Your task to perform on an android device: Open accessibility settings Image 0: 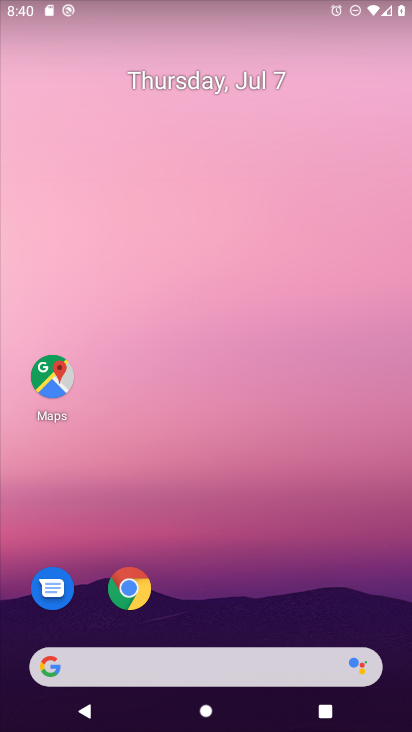
Step 0: drag from (240, 596) to (245, 325)
Your task to perform on an android device: Open accessibility settings Image 1: 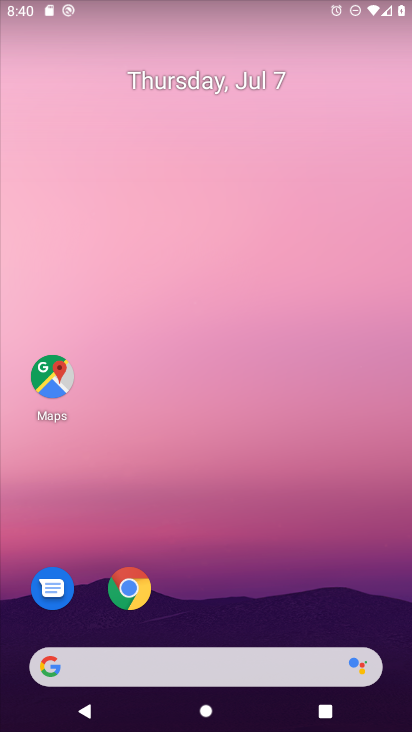
Step 1: drag from (228, 668) to (230, 266)
Your task to perform on an android device: Open accessibility settings Image 2: 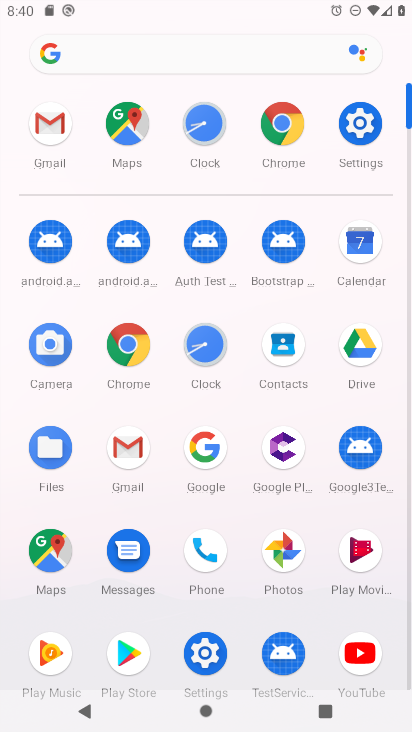
Step 2: click (355, 112)
Your task to perform on an android device: Open accessibility settings Image 3: 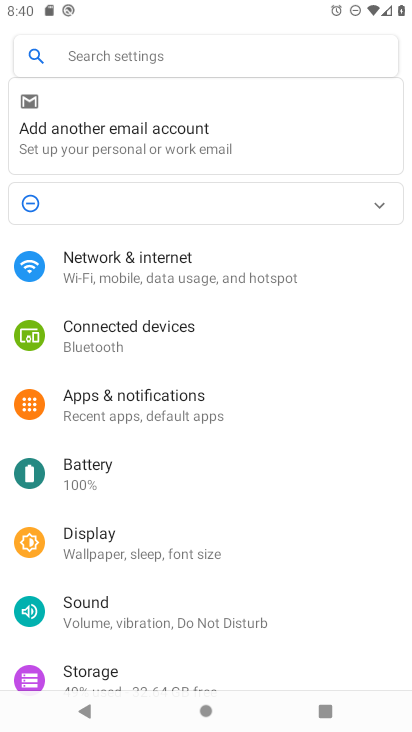
Step 3: drag from (169, 614) to (245, 235)
Your task to perform on an android device: Open accessibility settings Image 4: 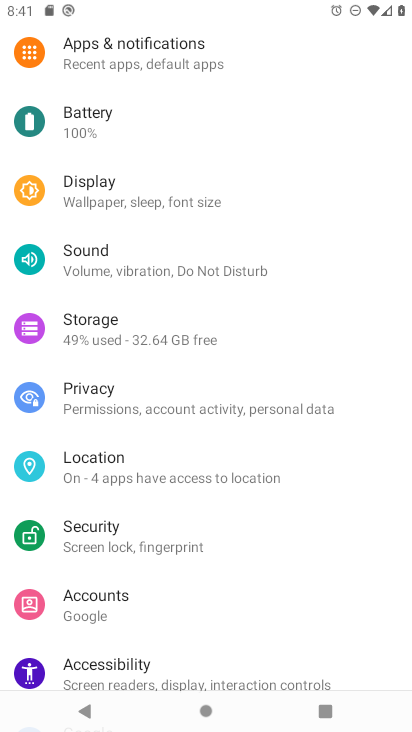
Step 4: drag from (115, 653) to (163, 346)
Your task to perform on an android device: Open accessibility settings Image 5: 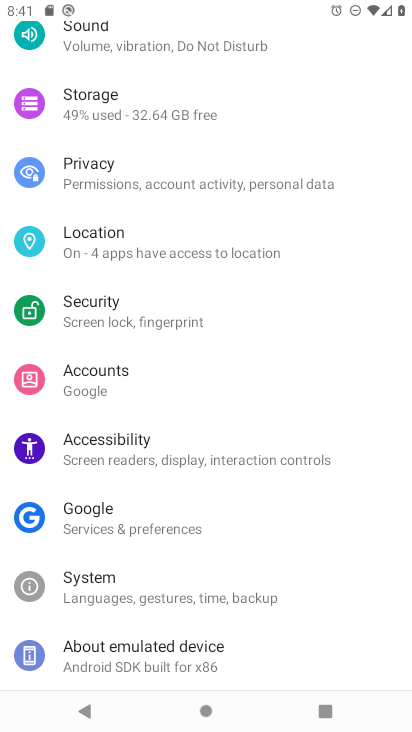
Step 5: click (136, 453)
Your task to perform on an android device: Open accessibility settings Image 6: 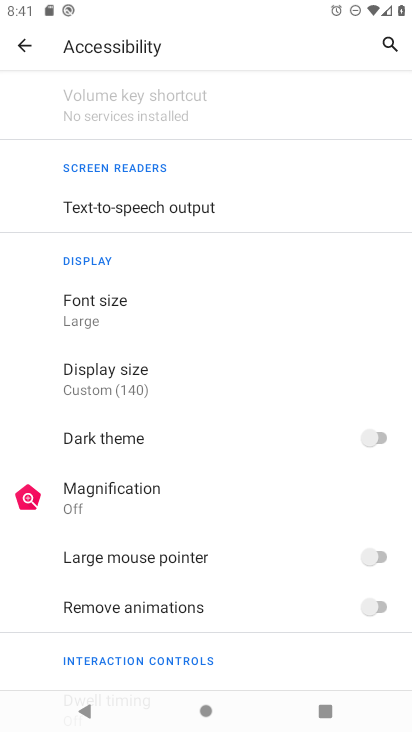
Step 6: task complete